Your task to perform on an android device: Go to ESPN.com Image 0: 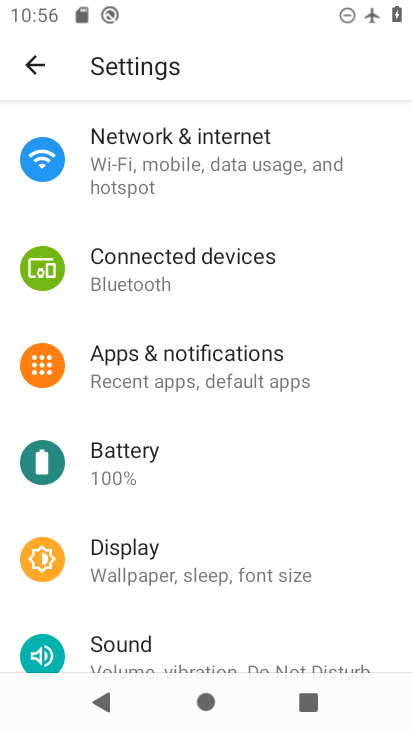
Step 0: press home button
Your task to perform on an android device: Go to ESPN.com Image 1: 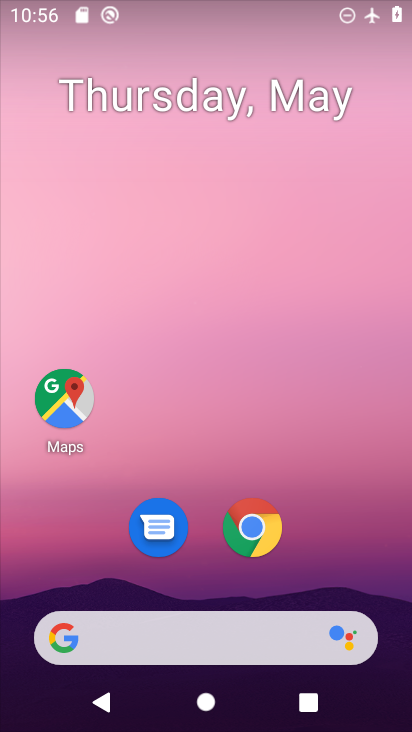
Step 1: click (254, 531)
Your task to perform on an android device: Go to ESPN.com Image 2: 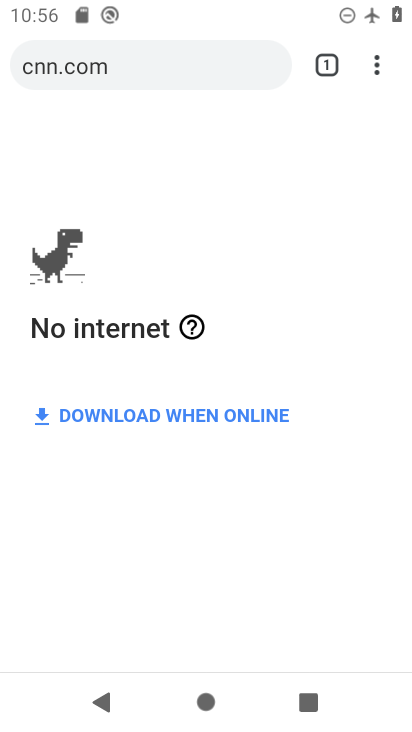
Step 2: click (185, 65)
Your task to perform on an android device: Go to ESPN.com Image 3: 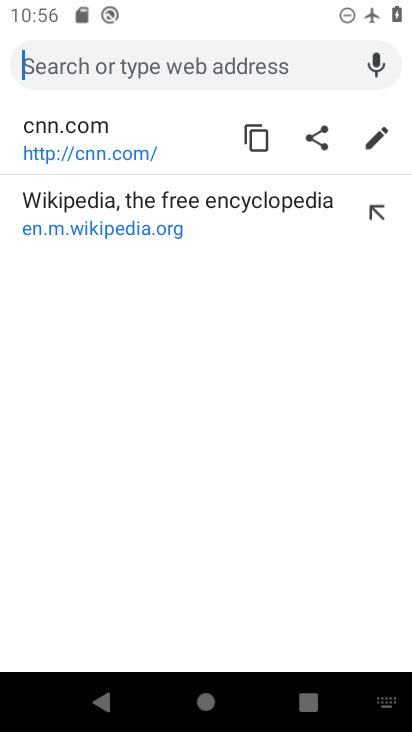
Step 3: type "espn.com"
Your task to perform on an android device: Go to ESPN.com Image 4: 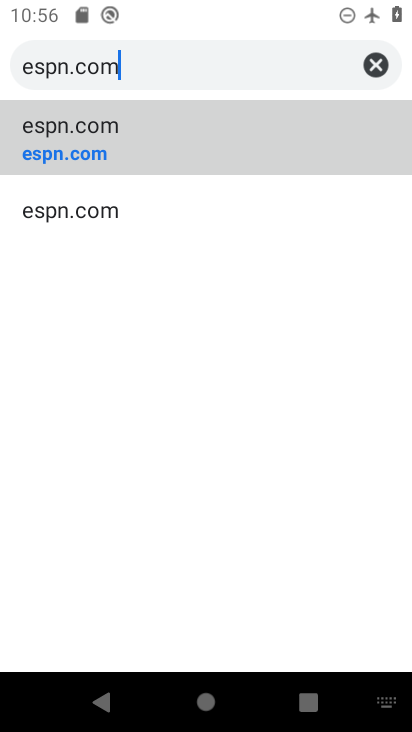
Step 4: click (79, 149)
Your task to perform on an android device: Go to ESPN.com Image 5: 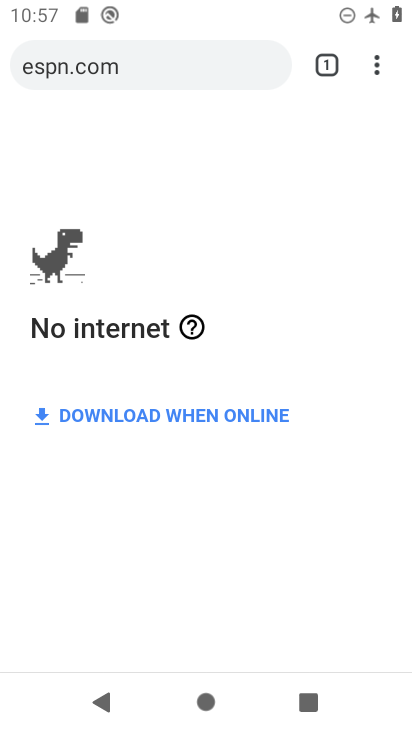
Step 5: task complete